Your task to perform on an android device: Open notification settings Image 0: 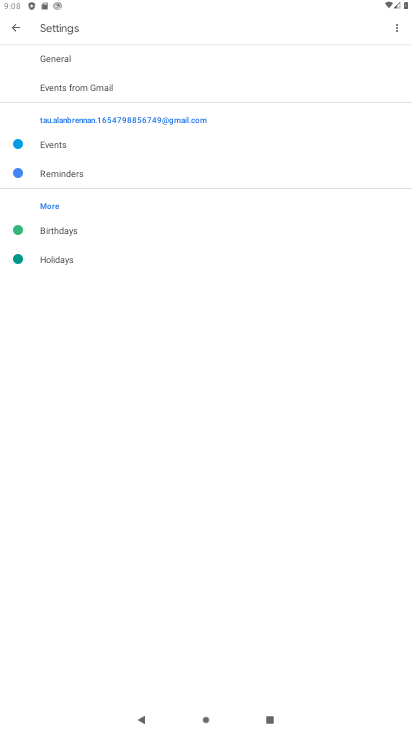
Step 0: press home button
Your task to perform on an android device: Open notification settings Image 1: 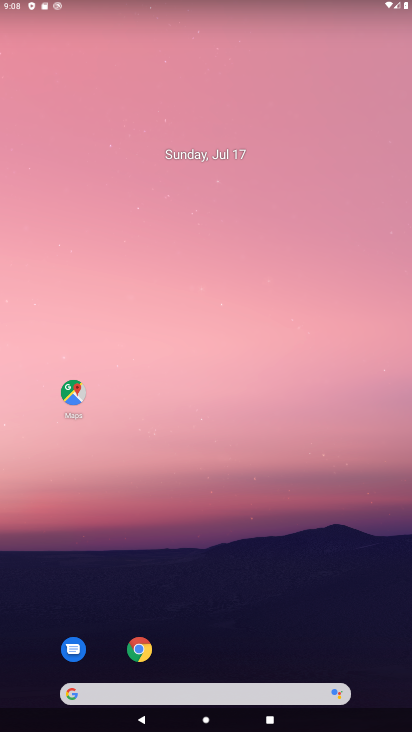
Step 1: drag from (22, 690) to (300, 89)
Your task to perform on an android device: Open notification settings Image 2: 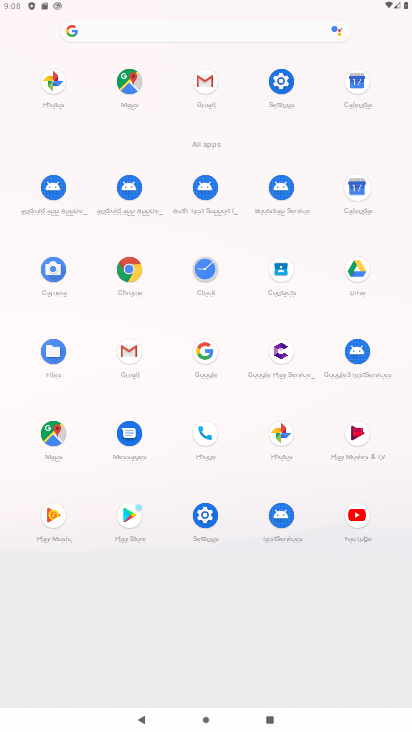
Step 2: click (210, 516)
Your task to perform on an android device: Open notification settings Image 3: 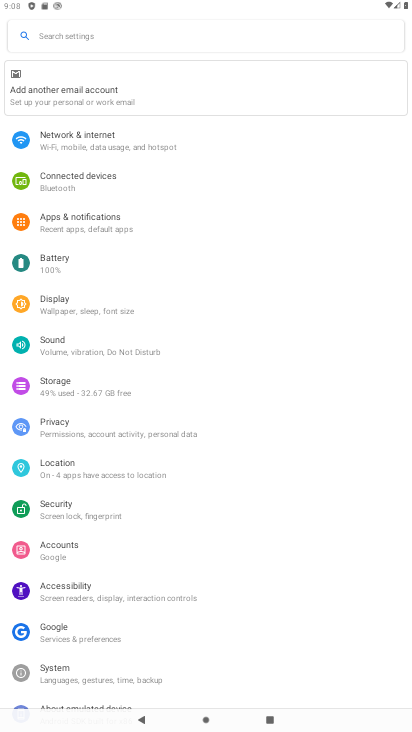
Step 3: click (139, 225)
Your task to perform on an android device: Open notification settings Image 4: 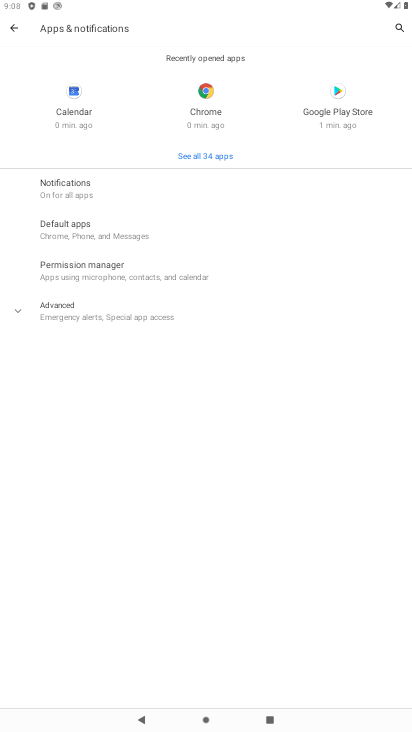
Step 4: task complete